Your task to perform on an android device: Is it going to rain today? Image 0: 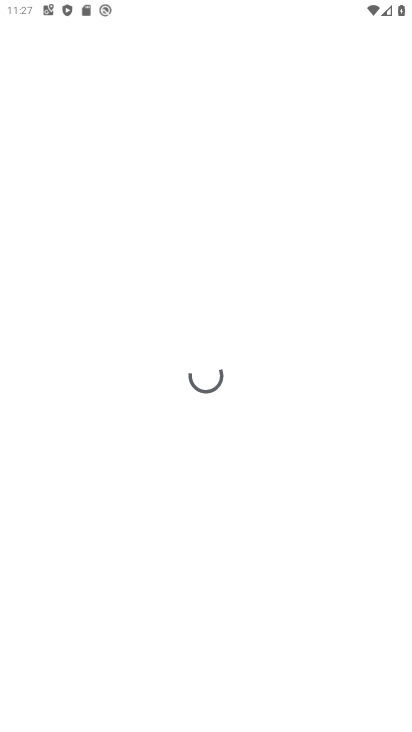
Step 0: press home button
Your task to perform on an android device: Is it going to rain today? Image 1: 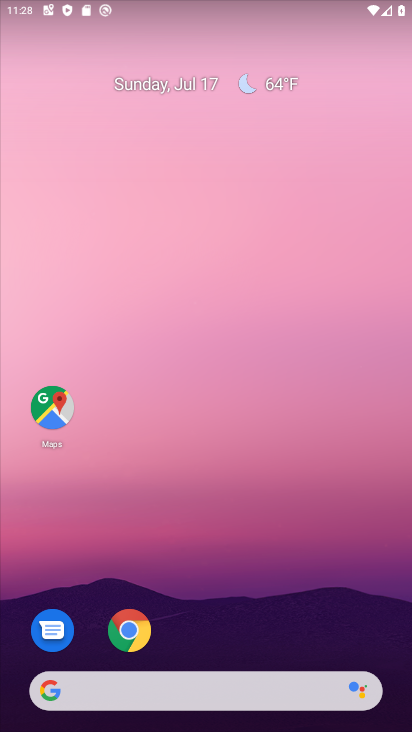
Step 1: click (259, 79)
Your task to perform on an android device: Is it going to rain today? Image 2: 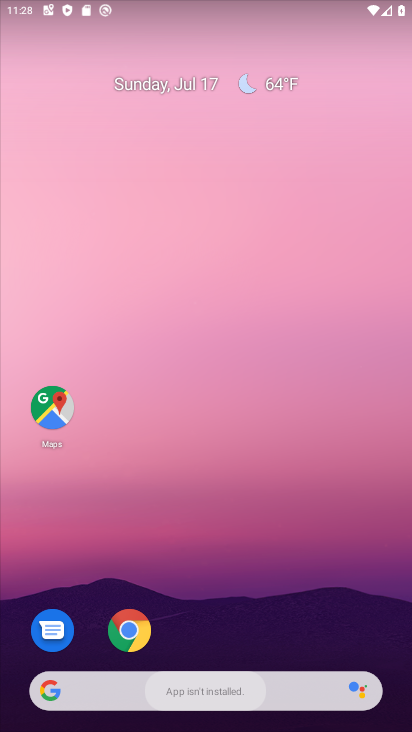
Step 2: click (269, 87)
Your task to perform on an android device: Is it going to rain today? Image 3: 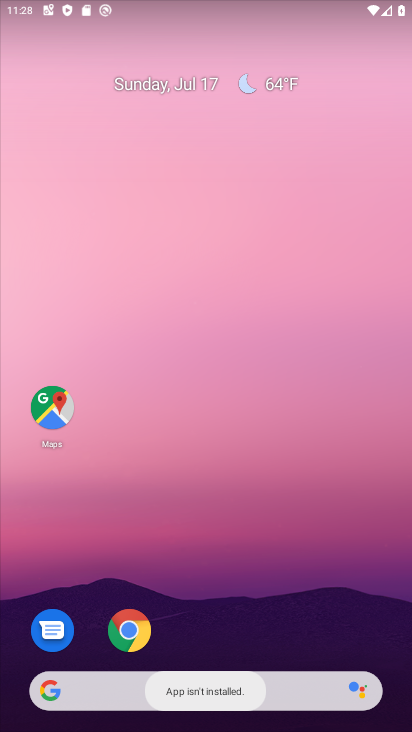
Step 3: click (105, 688)
Your task to perform on an android device: Is it going to rain today? Image 4: 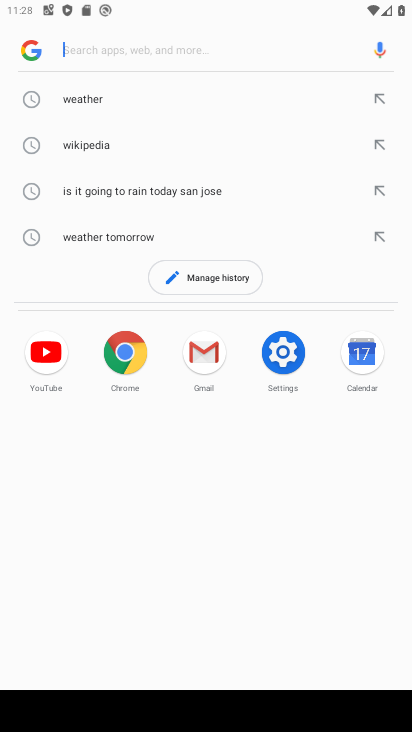
Step 4: click (82, 98)
Your task to perform on an android device: Is it going to rain today? Image 5: 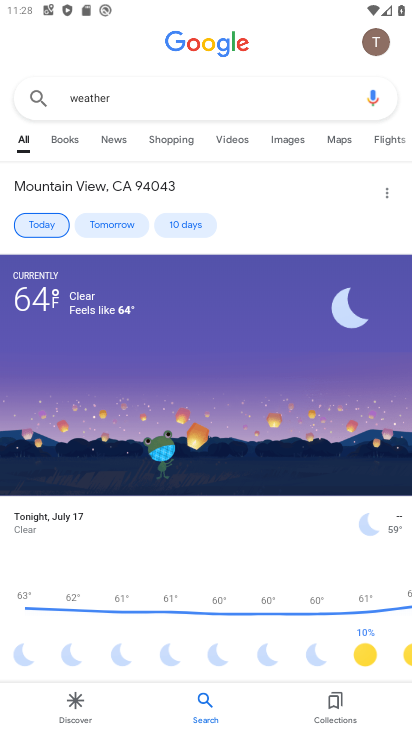
Step 5: task complete